Your task to perform on an android device: turn pop-ups off in chrome Image 0: 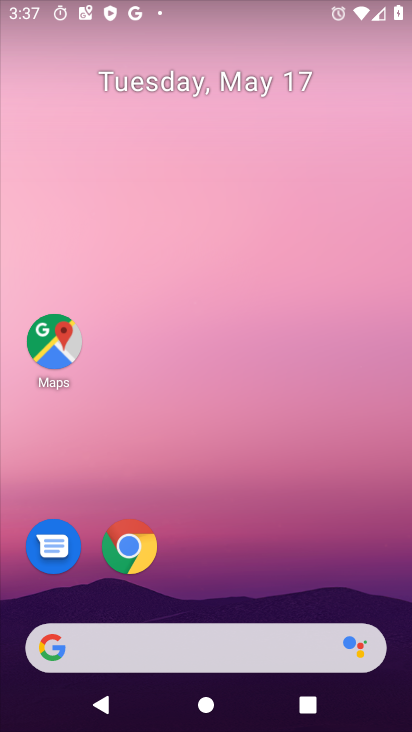
Step 0: click (142, 549)
Your task to perform on an android device: turn pop-ups off in chrome Image 1: 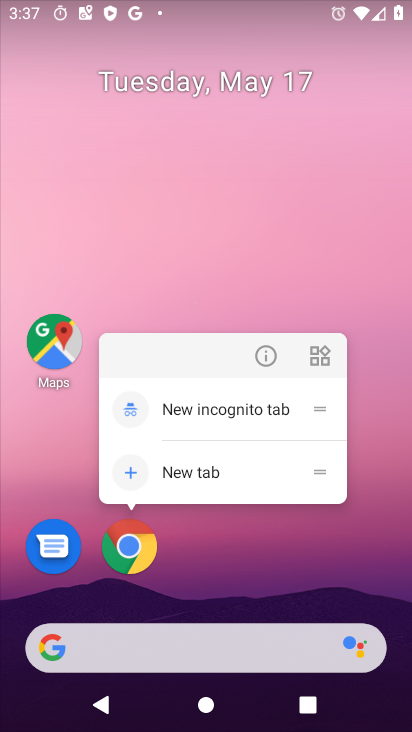
Step 1: click (126, 549)
Your task to perform on an android device: turn pop-ups off in chrome Image 2: 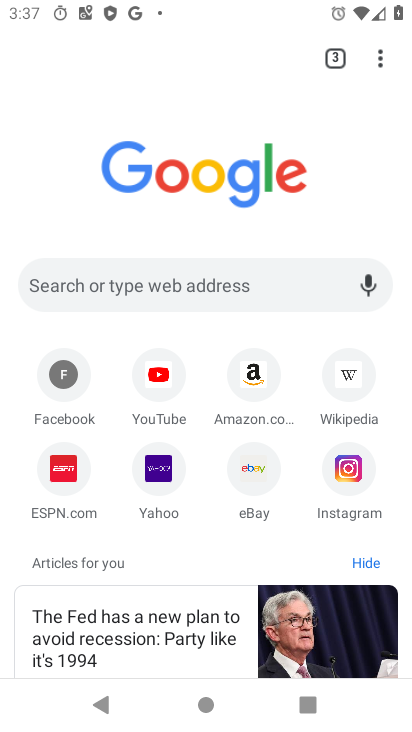
Step 2: click (377, 57)
Your task to perform on an android device: turn pop-ups off in chrome Image 3: 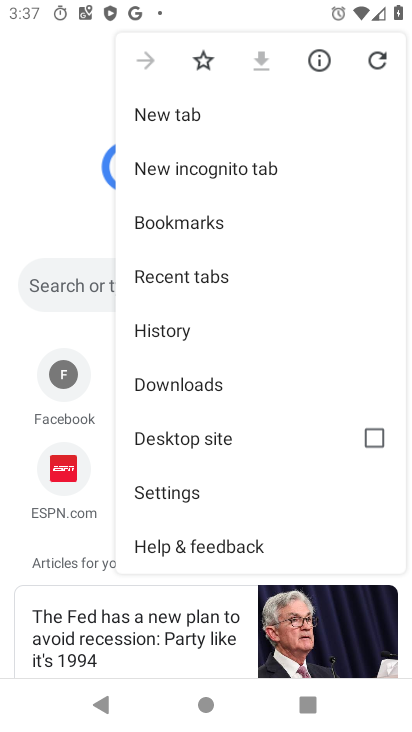
Step 3: click (141, 498)
Your task to perform on an android device: turn pop-ups off in chrome Image 4: 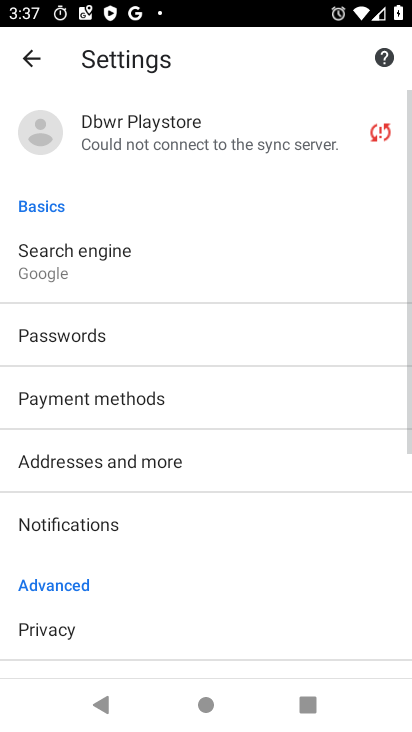
Step 4: drag from (225, 549) to (228, 346)
Your task to perform on an android device: turn pop-ups off in chrome Image 5: 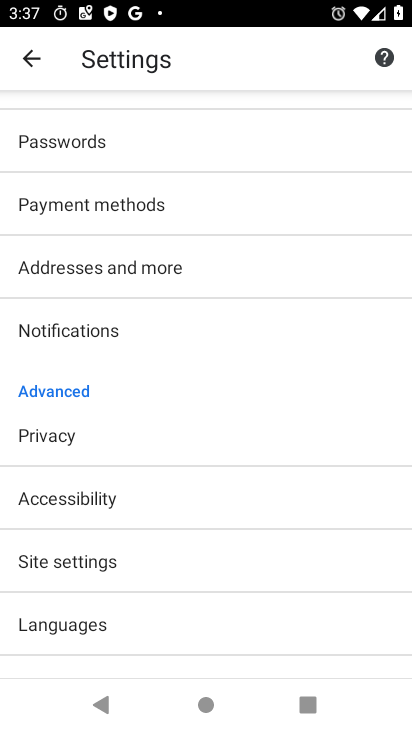
Step 5: drag from (222, 643) to (231, 363)
Your task to perform on an android device: turn pop-ups off in chrome Image 6: 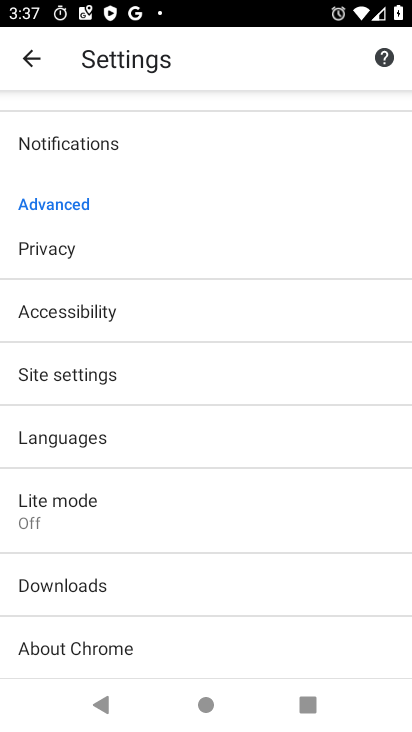
Step 6: drag from (224, 662) to (244, 420)
Your task to perform on an android device: turn pop-ups off in chrome Image 7: 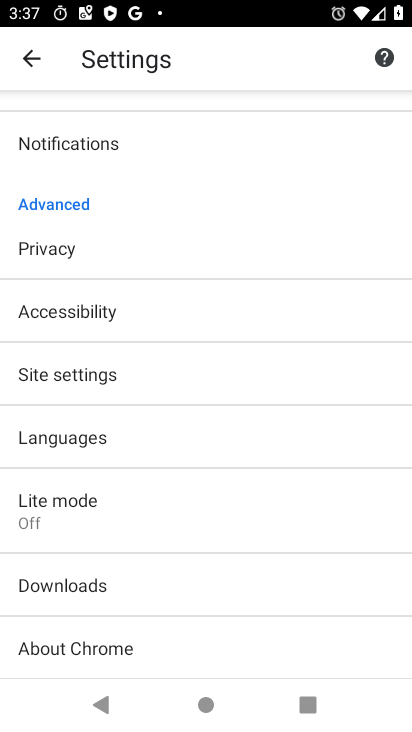
Step 7: click (68, 373)
Your task to perform on an android device: turn pop-ups off in chrome Image 8: 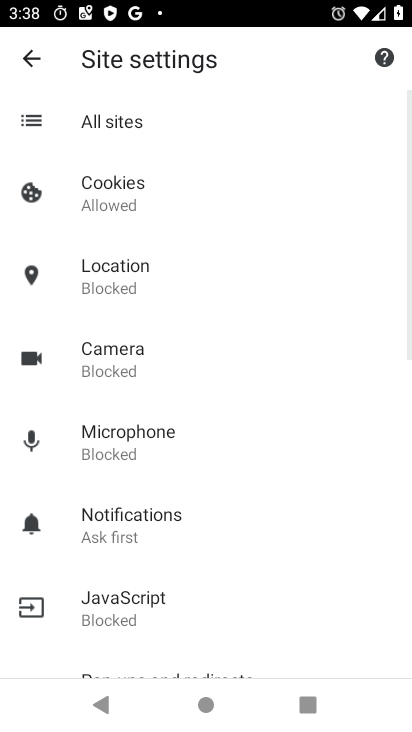
Step 8: drag from (233, 599) to (253, 438)
Your task to perform on an android device: turn pop-ups off in chrome Image 9: 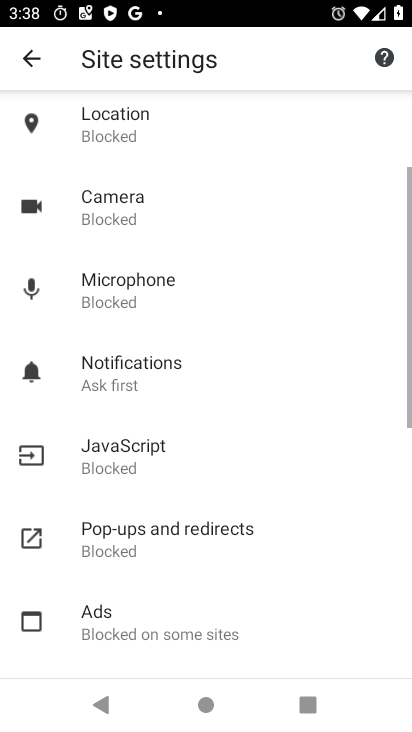
Step 9: click (156, 532)
Your task to perform on an android device: turn pop-ups off in chrome Image 10: 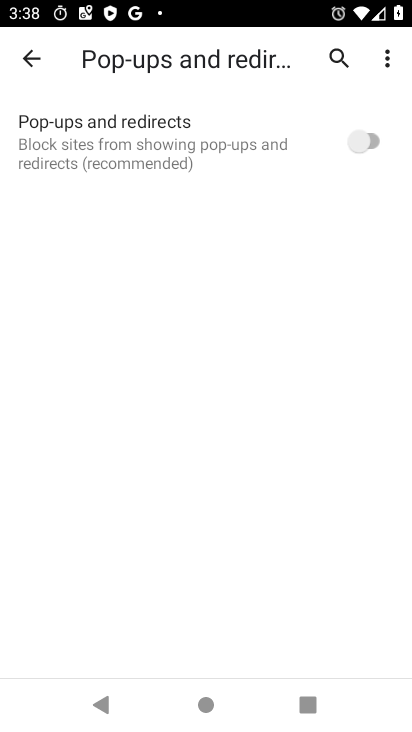
Step 10: task complete